Your task to perform on an android device: Search for sushi restaurants on Maps Image 0: 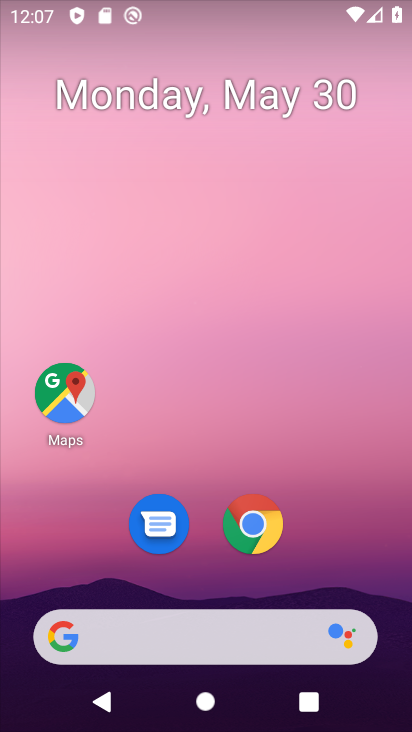
Step 0: click (68, 394)
Your task to perform on an android device: Search for sushi restaurants on Maps Image 1: 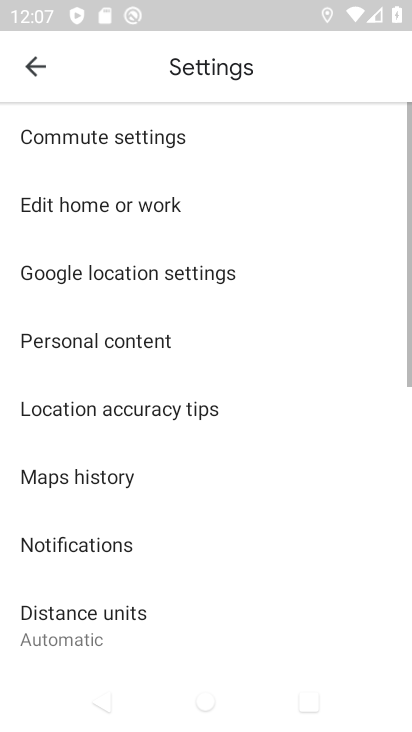
Step 1: click (40, 67)
Your task to perform on an android device: Search for sushi restaurants on Maps Image 2: 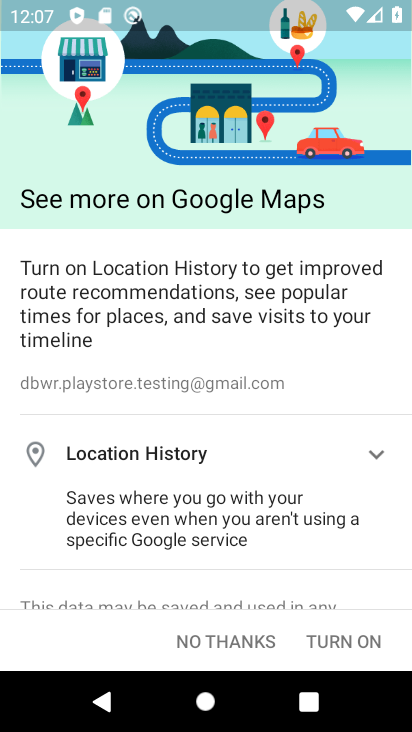
Step 2: click (373, 639)
Your task to perform on an android device: Search for sushi restaurants on Maps Image 3: 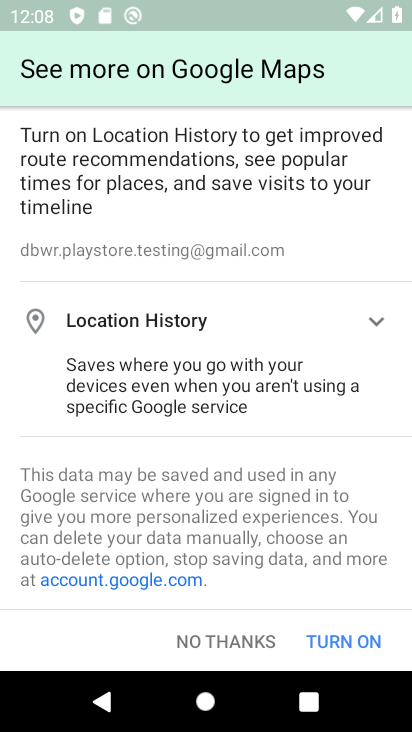
Step 3: click (363, 636)
Your task to perform on an android device: Search for sushi restaurants on Maps Image 4: 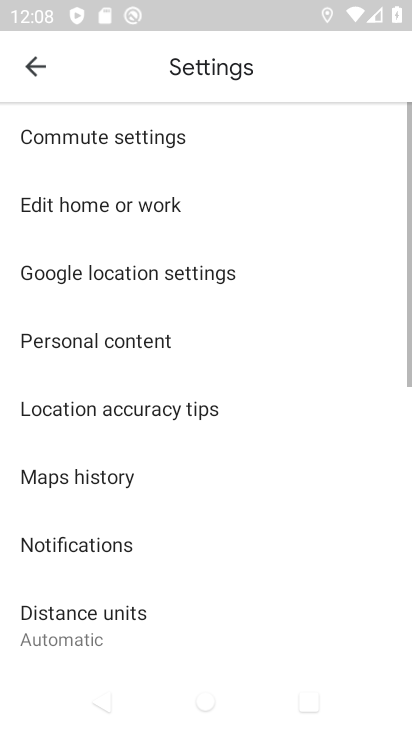
Step 4: click (39, 65)
Your task to perform on an android device: Search for sushi restaurants on Maps Image 5: 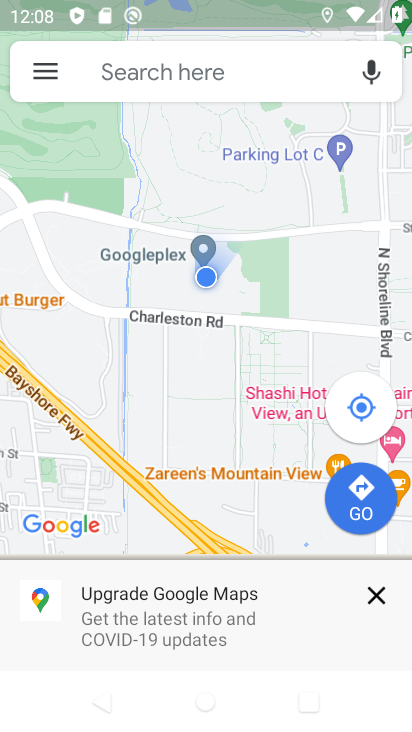
Step 5: click (201, 71)
Your task to perform on an android device: Search for sushi restaurants on Maps Image 6: 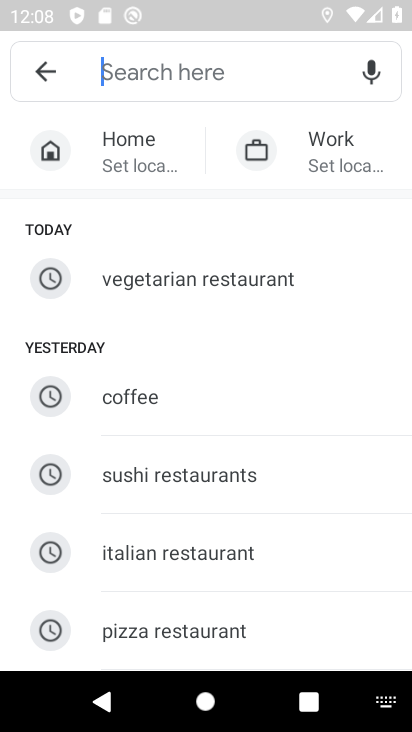
Step 6: drag from (188, 576) to (230, 248)
Your task to perform on an android device: Search for sushi restaurants on Maps Image 7: 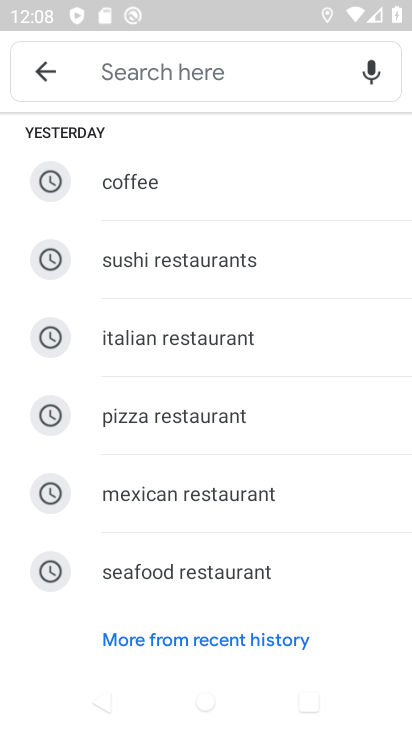
Step 7: click (225, 254)
Your task to perform on an android device: Search for sushi restaurants on Maps Image 8: 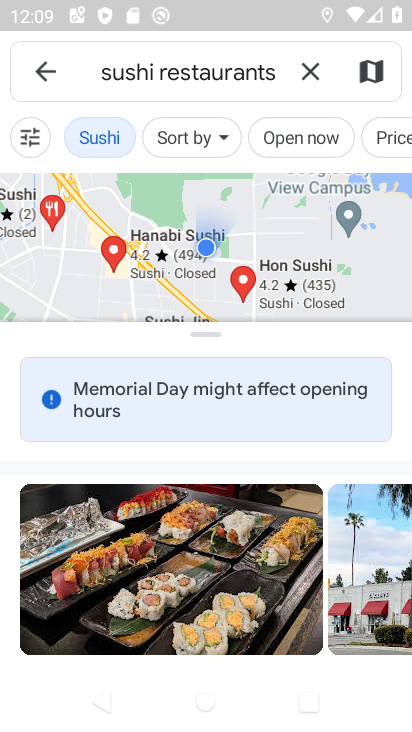
Step 8: task complete